Your task to perform on an android device: Go to Reddit.com Image 0: 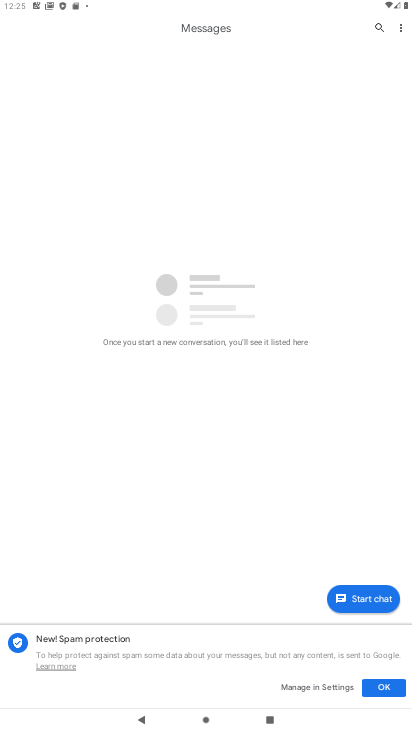
Step 0: press home button
Your task to perform on an android device: Go to Reddit.com Image 1: 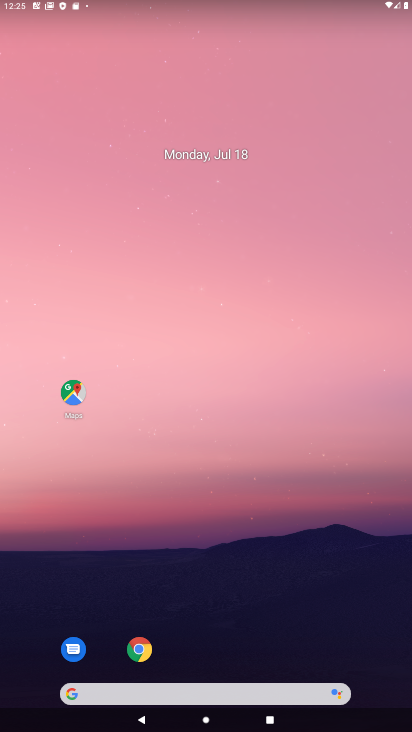
Step 1: click (136, 648)
Your task to perform on an android device: Go to Reddit.com Image 2: 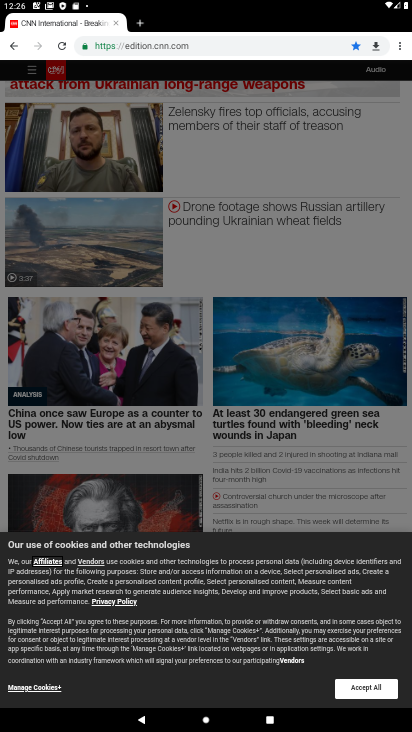
Step 2: click (250, 44)
Your task to perform on an android device: Go to Reddit.com Image 3: 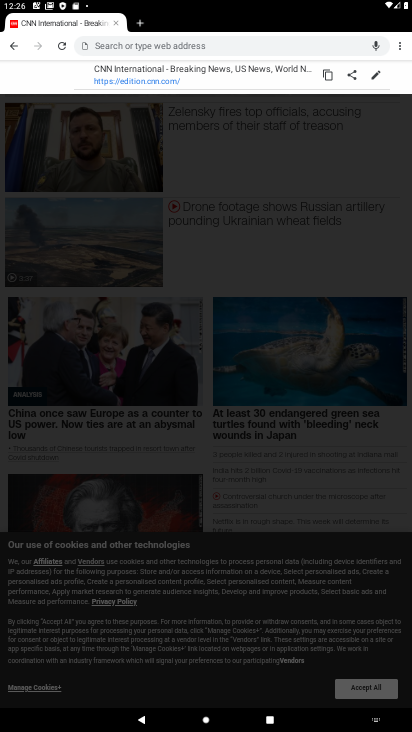
Step 3: type "reddit.com"
Your task to perform on an android device: Go to Reddit.com Image 4: 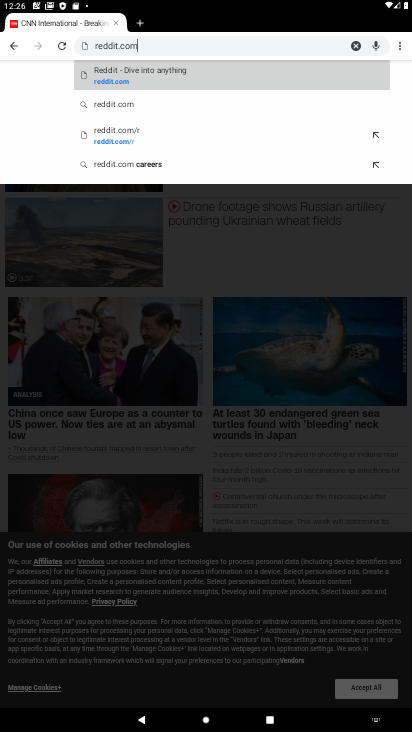
Step 4: click (181, 73)
Your task to perform on an android device: Go to Reddit.com Image 5: 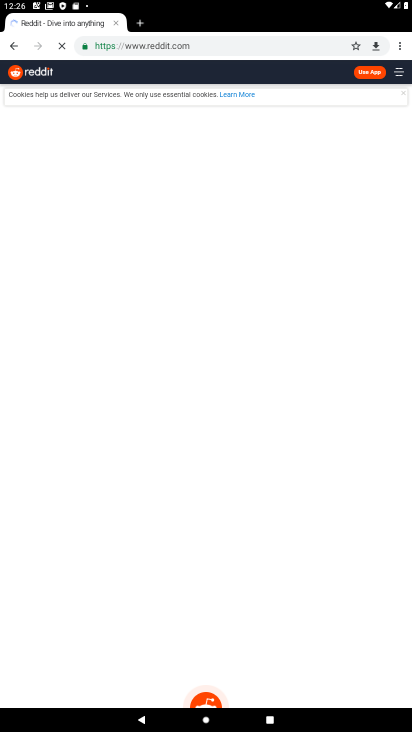
Step 5: task complete